Your task to perform on an android device: check battery use Image 0: 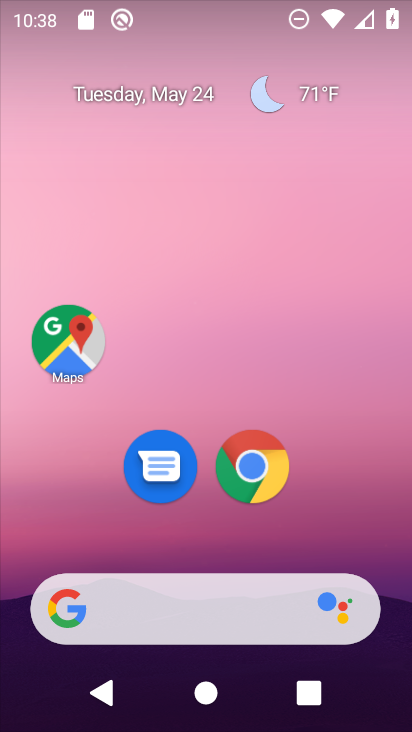
Step 0: drag from (207, 553) to (244, 115)
Your task to perform on an android device: check battery use Image 1: 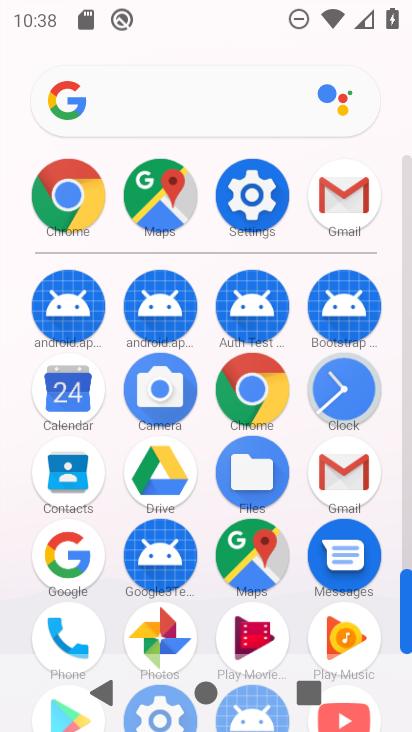
Step 1: click (256, 202)
Your task to perform on an android device: check battery use Image 2: 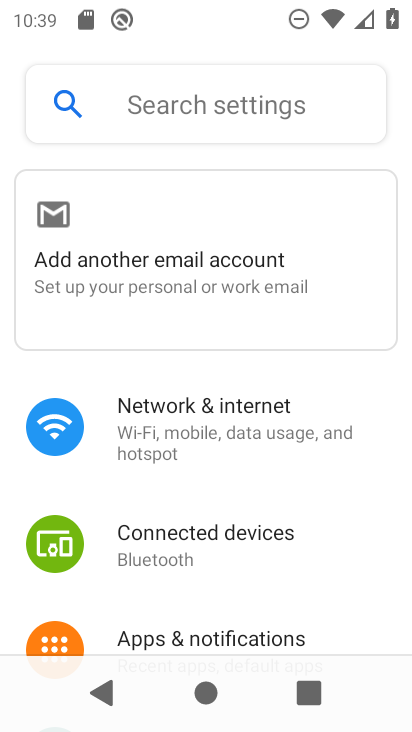
Step 2: drag from (198, 607) to (281, 165)
Your task to perform on an android device: check battery use Image 3: 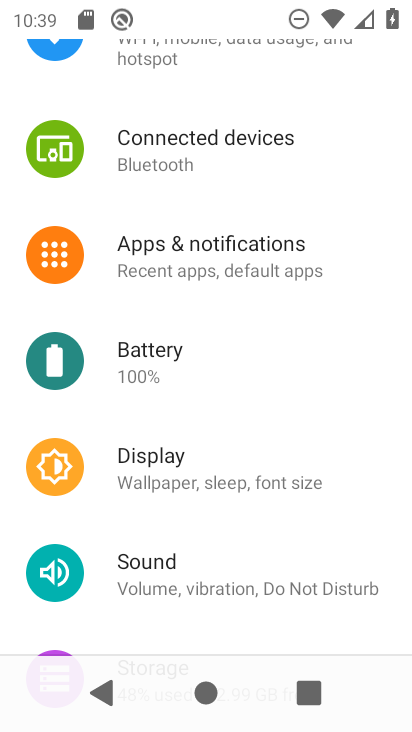
Step 3: click (152, 357)
Your task to perform on an android device: check battery use Image 4: 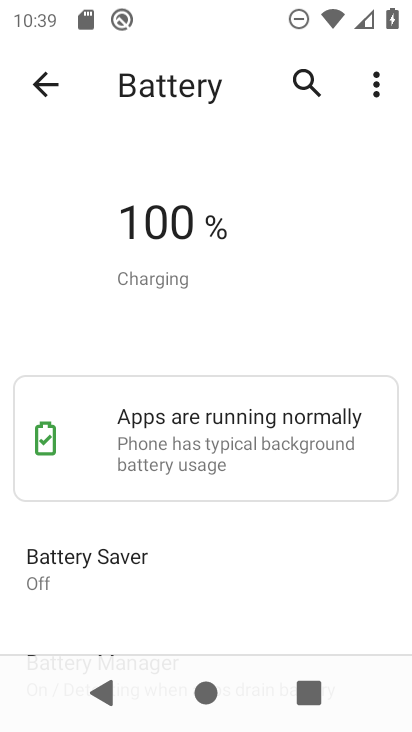
Step 4: click (377, 91)
Your task to perform on an android device: check battery use Image 5: 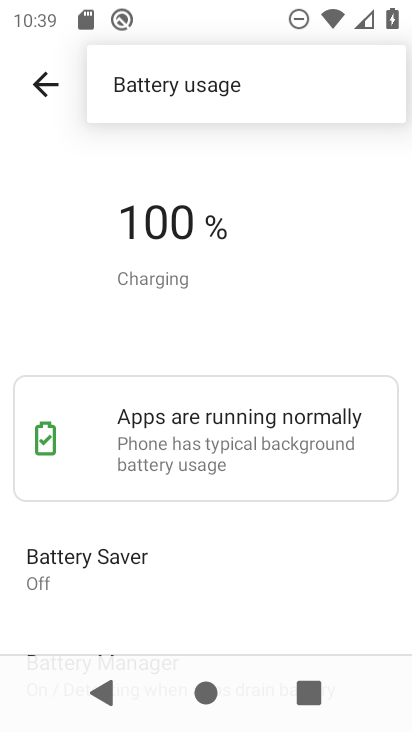
Step 5: click (338, 84)
Your task to perform on an android device: check battery use Image 6: 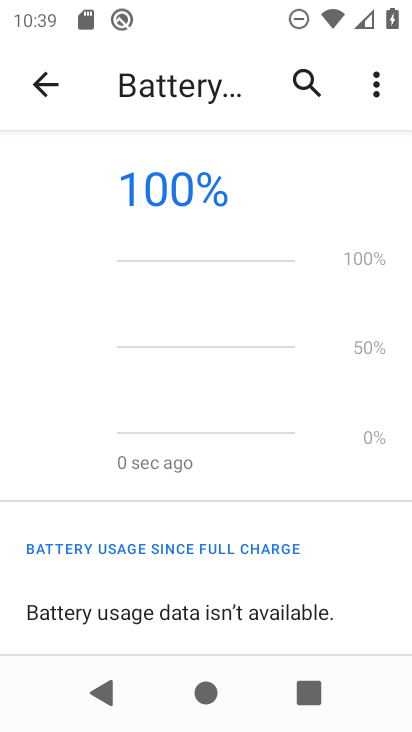
Step 6: task complete